Your task to perform on an android device: turn on location history Image 0: 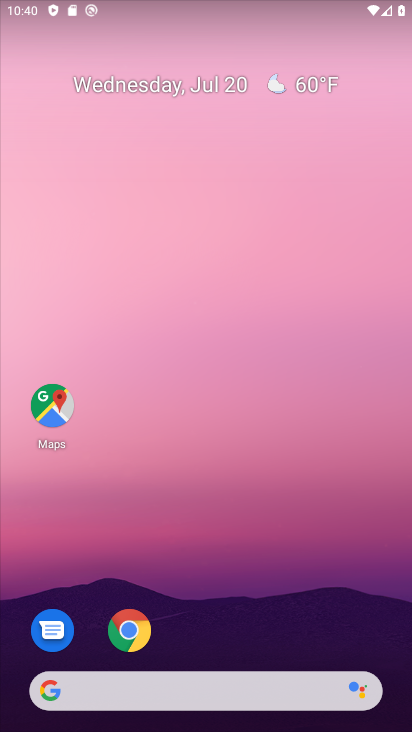
Step 0: click (149, 72)
Your task to perform on an android device: turn on location history Image 1: 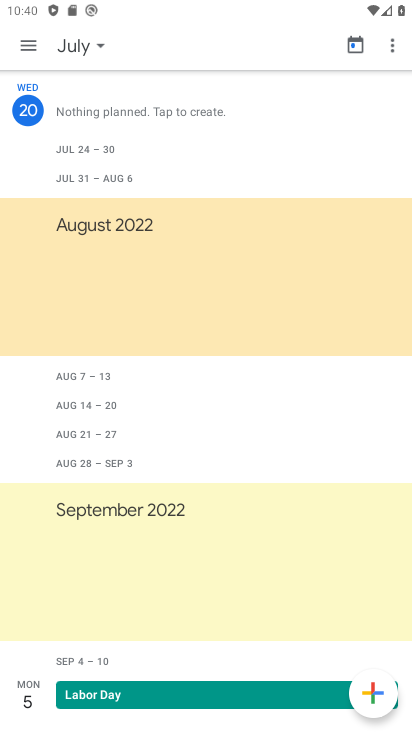
Step 1: press home button
Your task to perform on an android device: turn on location history Image 2: 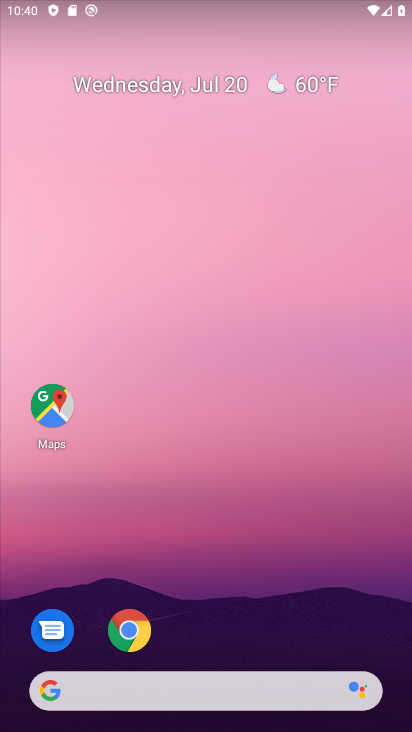
Step 2: drag from (218, 640) to (239, 105)
Your task to perform on an android device: turn on location history Image 3: 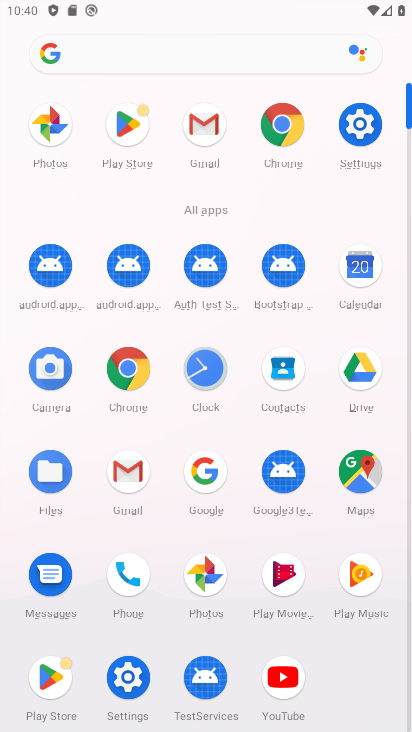
Step 3: click (353, 129)
Your task to perform on an android device: turn on location history Image 4: 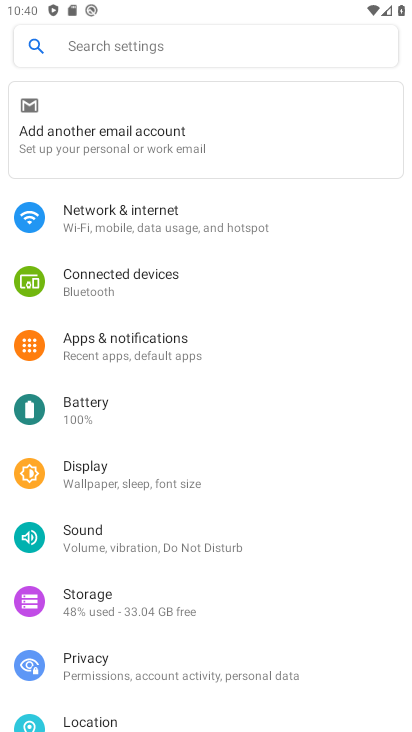
Step 4: click (81, 716)
Your task to perform on an android device: turn on location history Image 5: 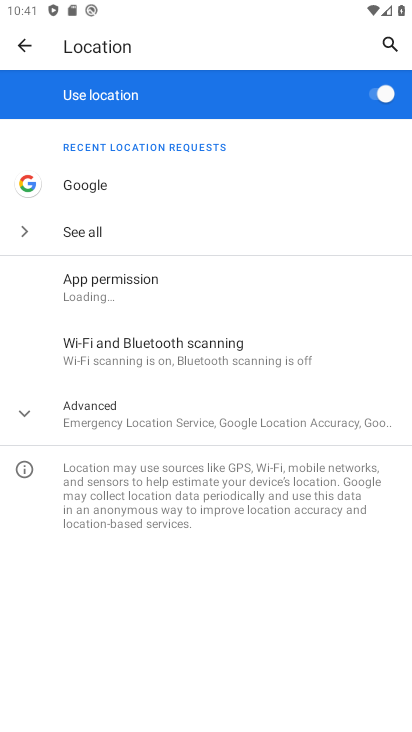
Step 5: click (81, 408)
Your task to perform on an android device: turn on location history Image 6: 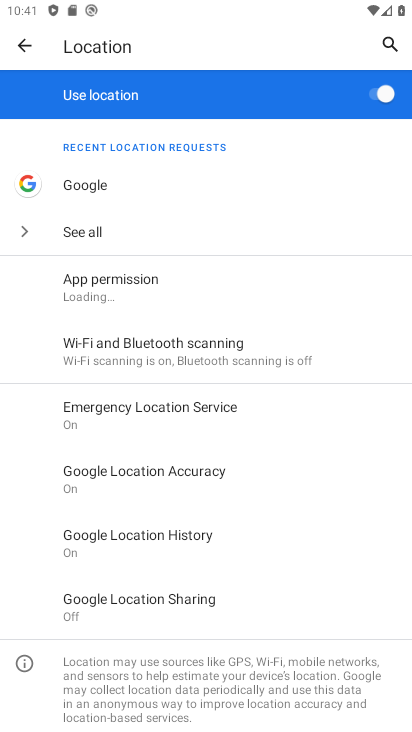
Step 6: click (175, 536)
Your task to perform on an android device: turn on location history Image 7: 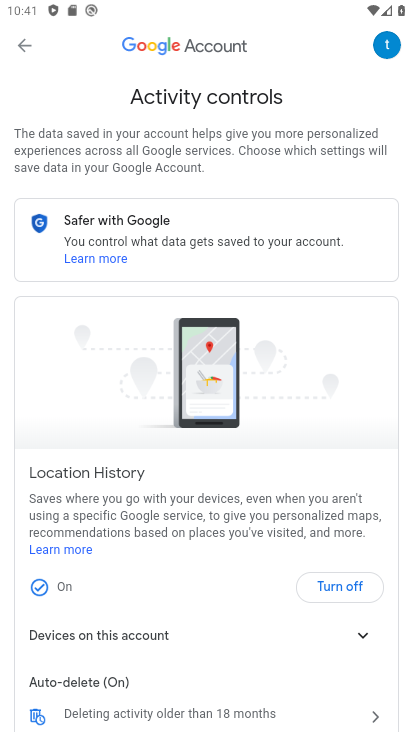
Step 7: task complete